Your task to perform on an android device: Open Google Chrome and open the bookmarks view Image 0: 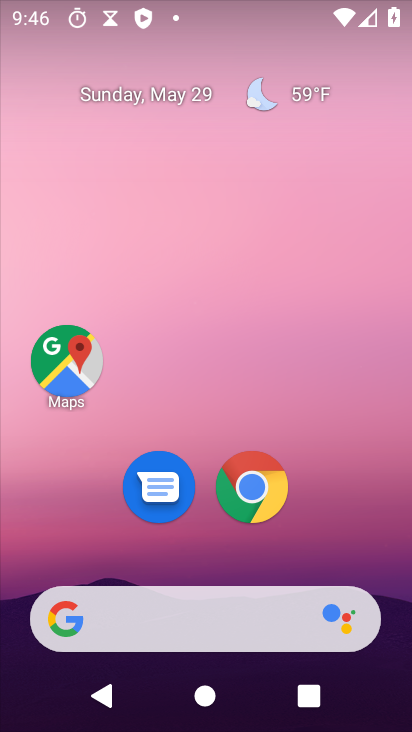
Step 0: click (251, 487)
Your task to perform on an android device: Open Google Chrome and open the bookmarks view Image 1: 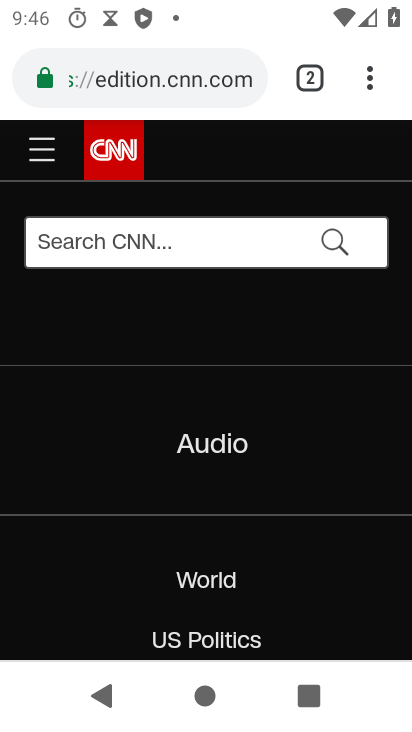
Step 1: click (370, 77)
Your task to perform on an android device: Open Google Chrome and open the bookmarks view Image 2: 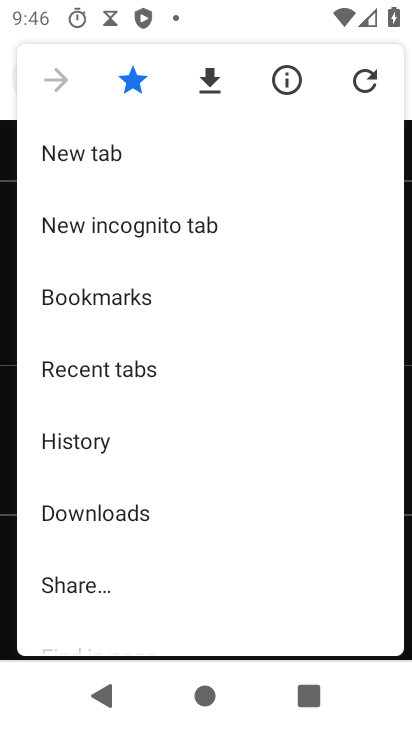
Step 2: click (139, 300)
Your task to perform on an android device: Open Google Chrome and open the bookmarks view Image 3: 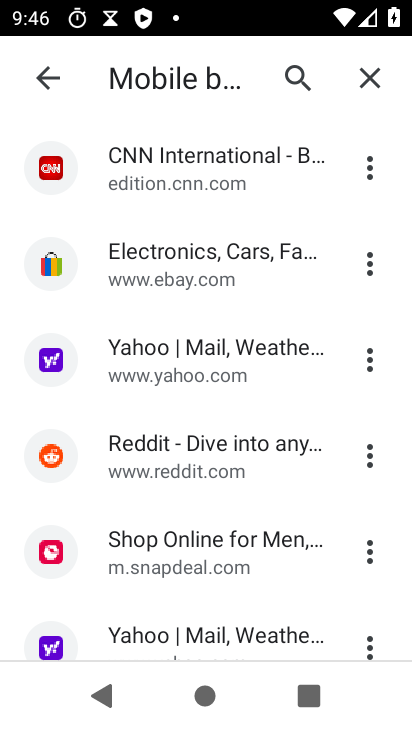
Step 3: task complete